Your task to perform on an android device: Open maps Image 0: 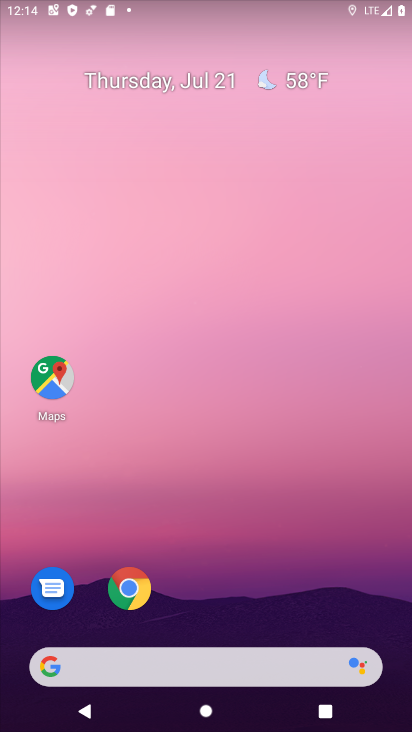
Step 0: click (44, 374)
Your task to perform on an android device: Open maps Image 1: 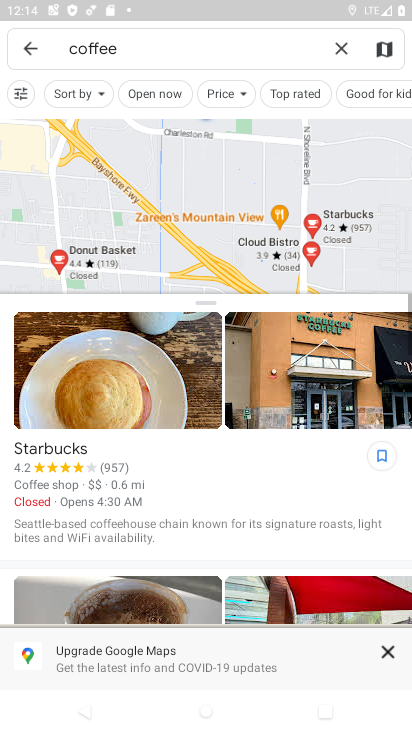
Step 1: click (26, 45)
Your task to perform on an android device: Open maps Image 2: 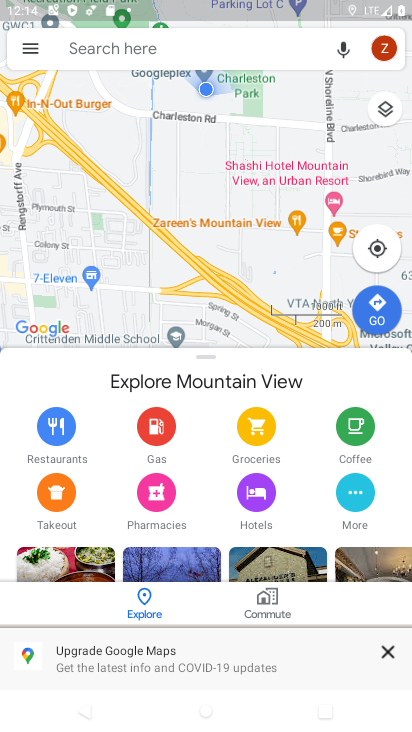
Step 2: task complete